Your task to perform on an android device: Open the stopwatch Image 0: 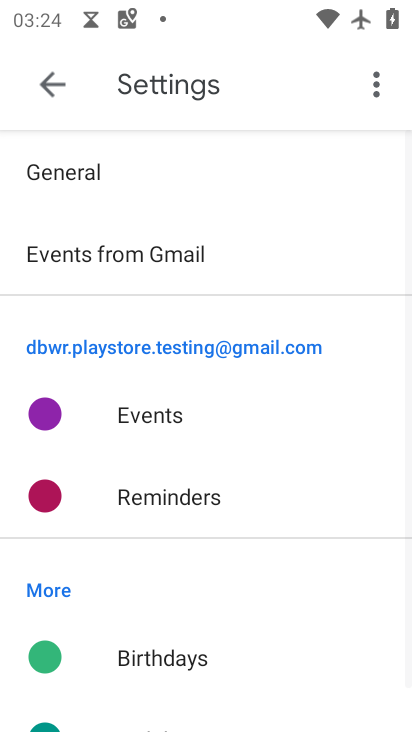
Step 0: press home button
Your task to perform on an android device: Open the stopwatch Image 1: 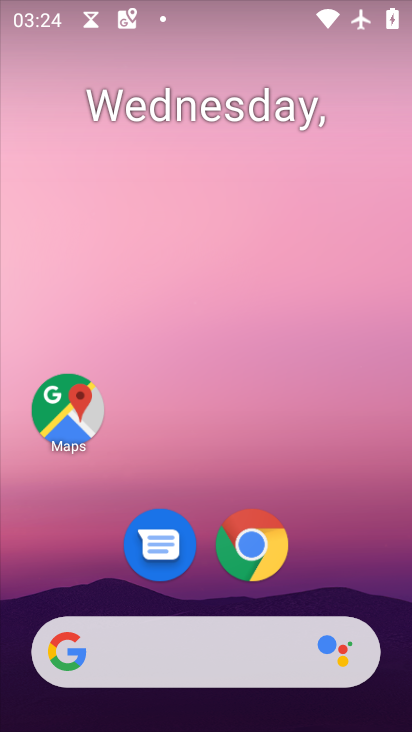
Step 1: drag from (200, 635) to (307, 179)
Your task to perform on an android device: Open the stopwatch Image 2: 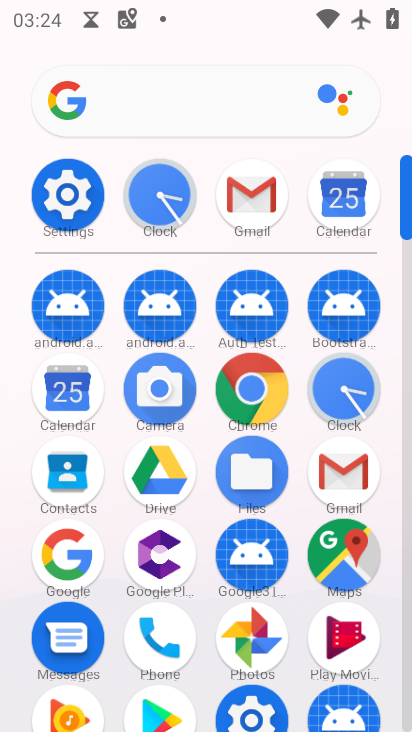
Step 2: click (354, 400)
Your task to perform on an android device: Open the stopwatch Image 3: 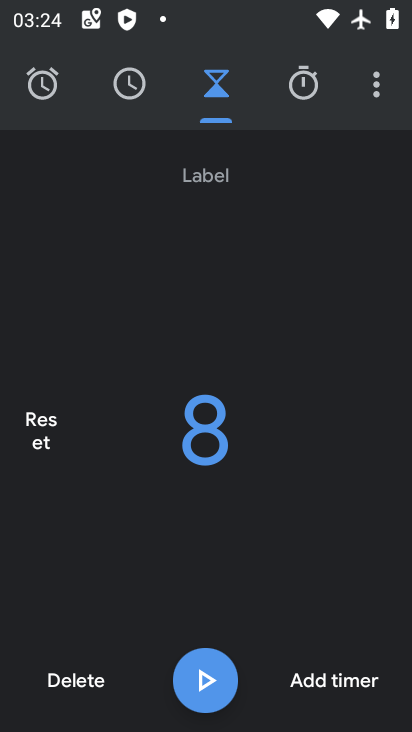
Step 3: click (296, 89)
Your task to perform on an android device: Open the stopwatch Image 4: 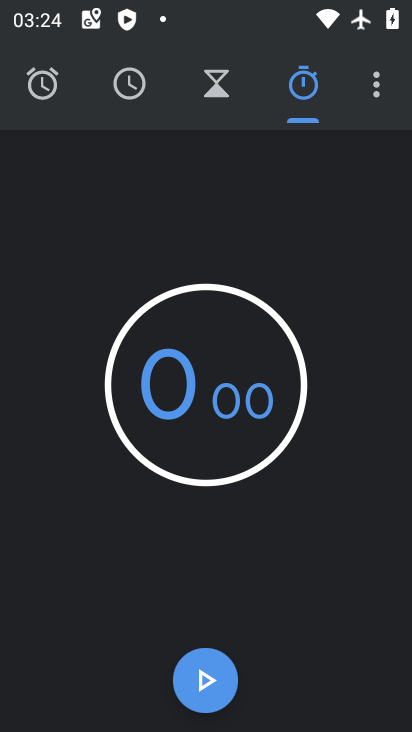
Step 4: task complete